Your task to perform on an android device: check battery use Image 0: 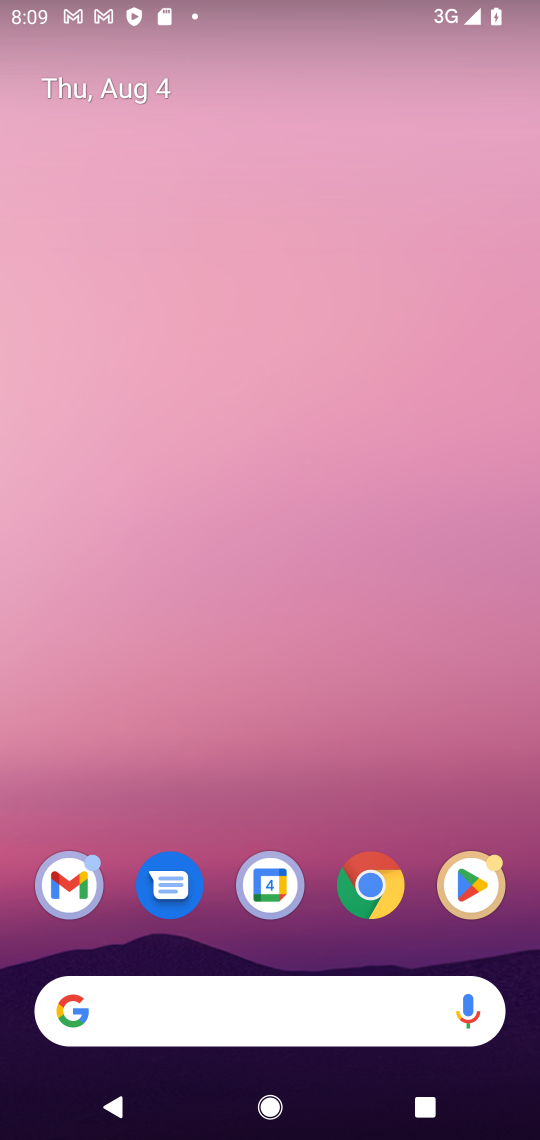
Step 0: press home button
Your task to perform on an android device: check battery use Image 1: 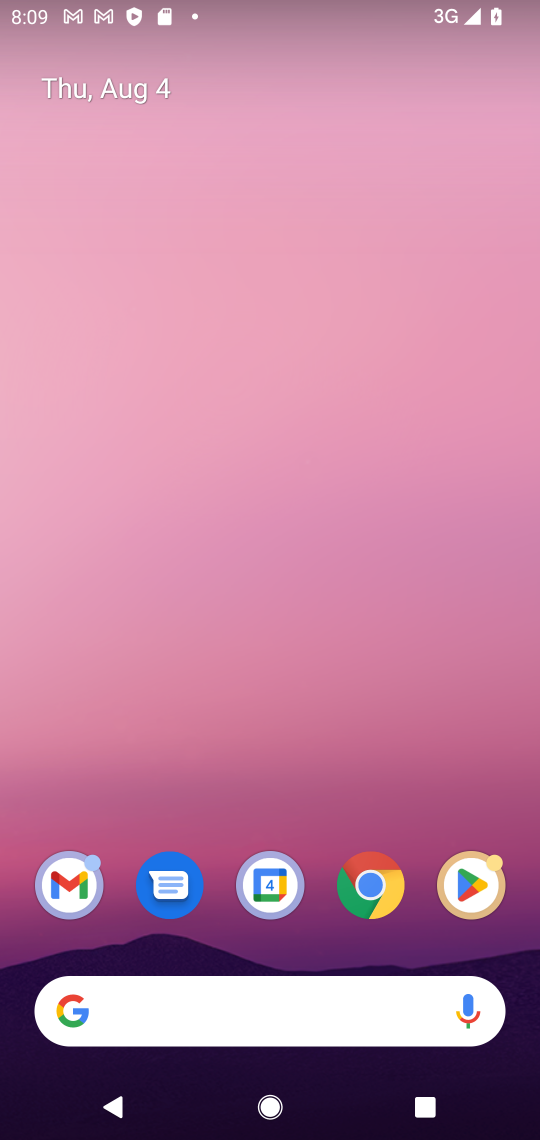
Step 1: press home button
Your task to perform on an android device: check battery use Image 2: 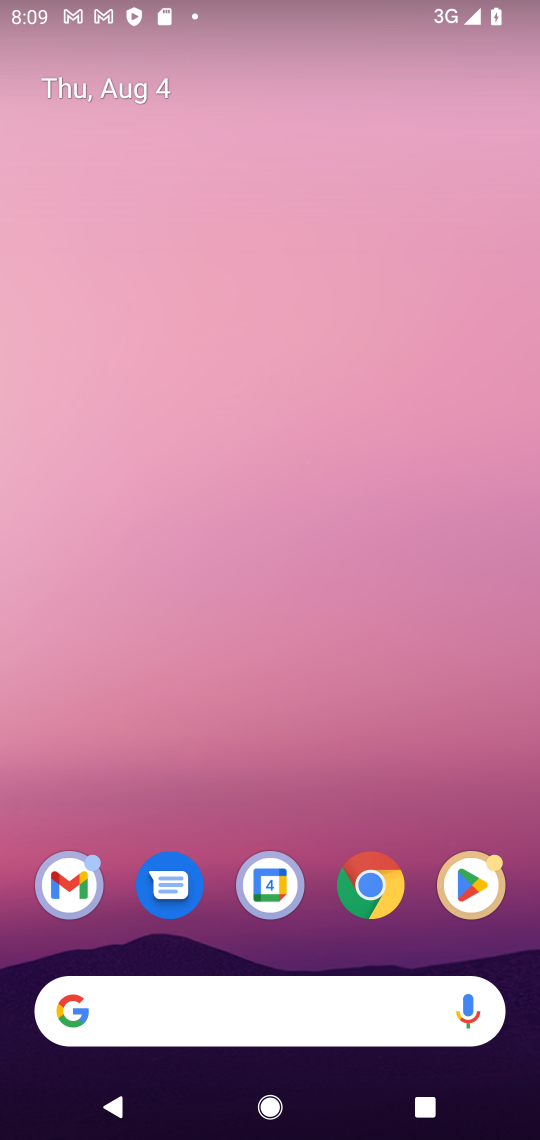
Step 2: drag from (306, 931) to (256, 308)
Your task to perform on an android device: check battery use Image 3: 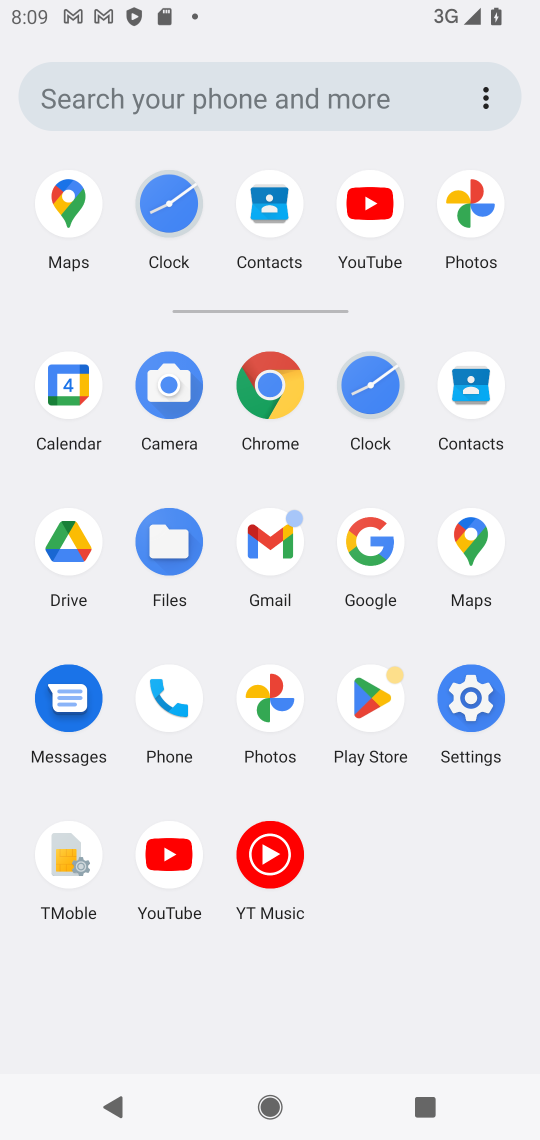
Step 3: click (477, 678)
Your task to perform on an android device: check battery use Image 4: 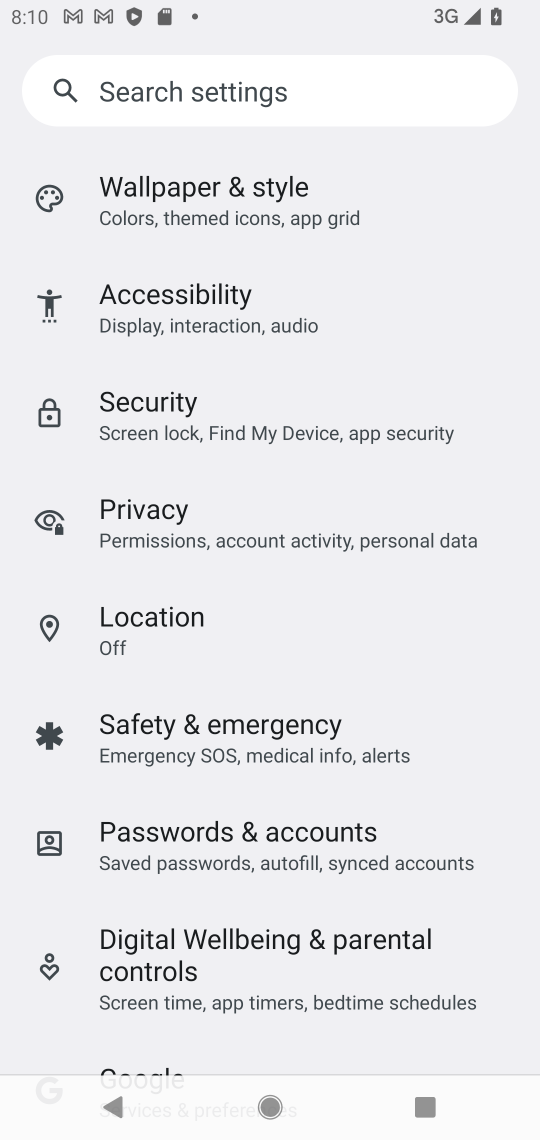
Step 4: drag from (240, 954) to (211, 137)
Your task to perform on an android device: check battery use Image 5: 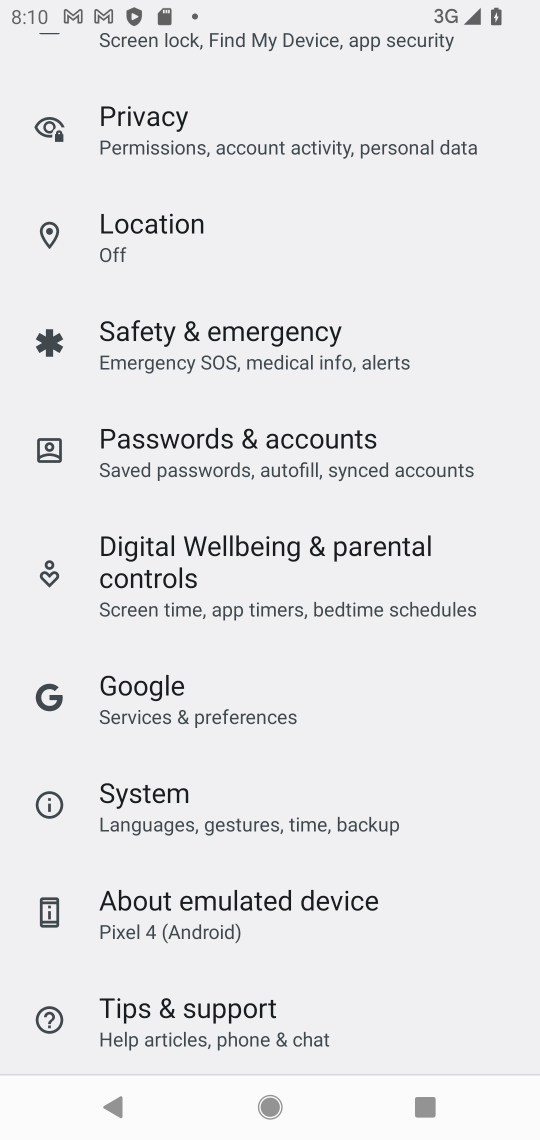
Step 5: drag from (231, 709) to (245, 1046)
Your task to perform on an android device: check battery use Image 6: 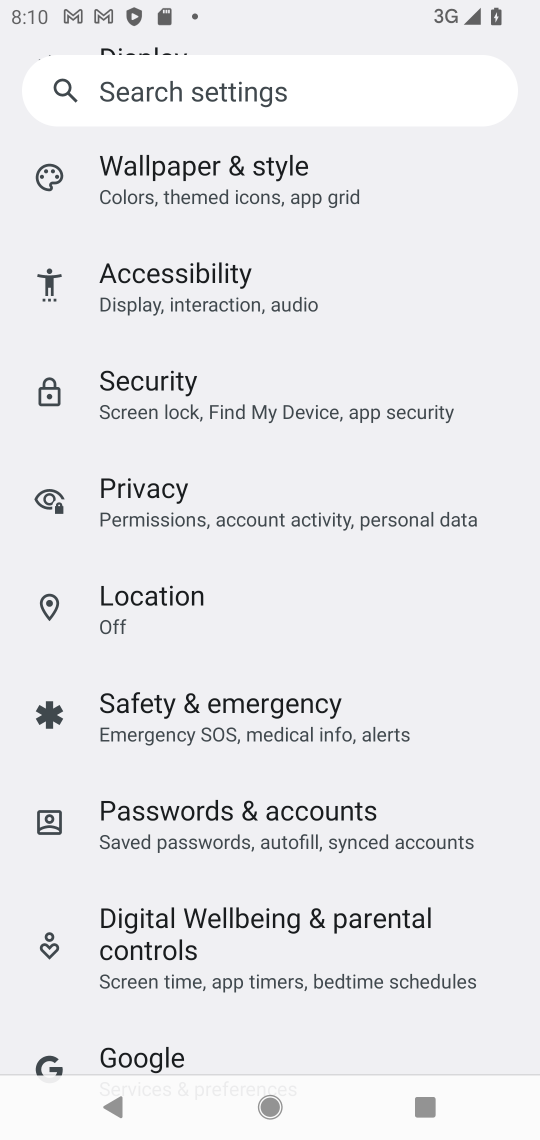
Step 6: drag from (298, 339) to (408, 877)
Your task to perform on an android device: check battery use Image 7: 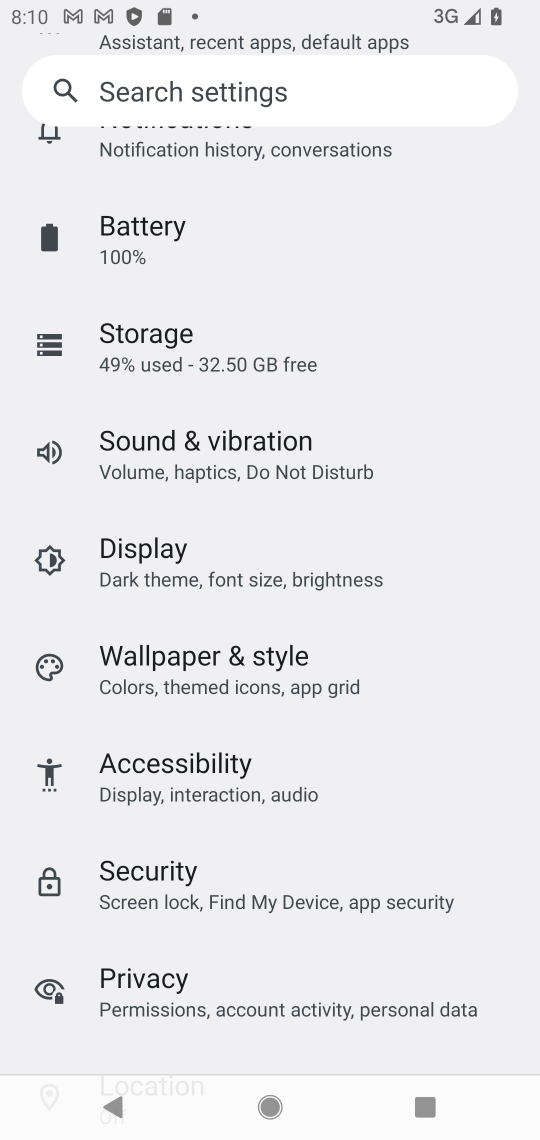
Step 7: click (113, 255)
Your task to perform on an android device: check battery use Image 8: 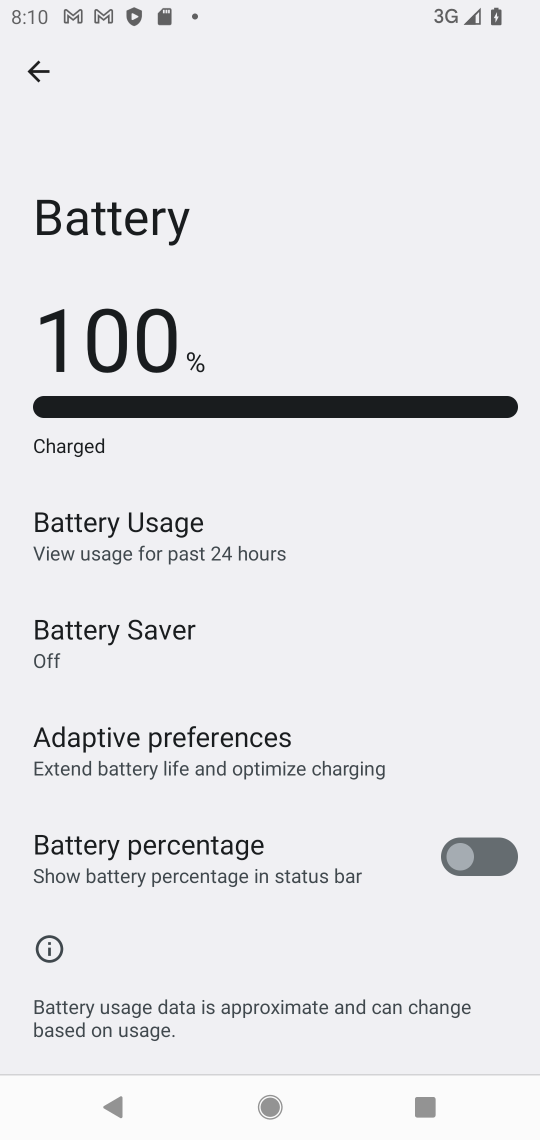
Step 8: task complete